Your task to perform on an android device: Open Google Maps Image 0: 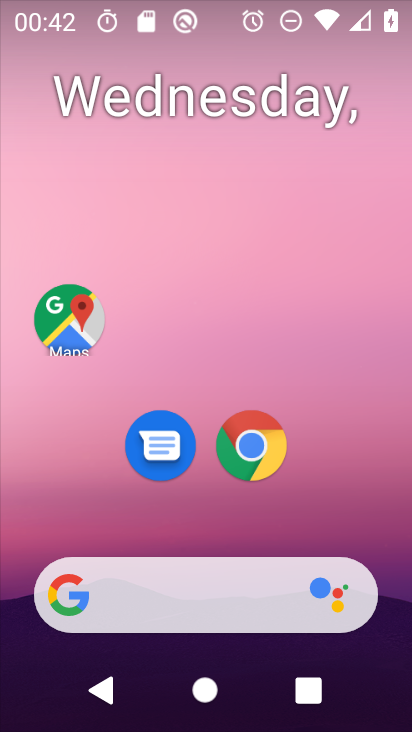
Step 0: drag from (326, 476) to (407, 37)
Your task to perform on an android device: Open Google Maps Image 1: 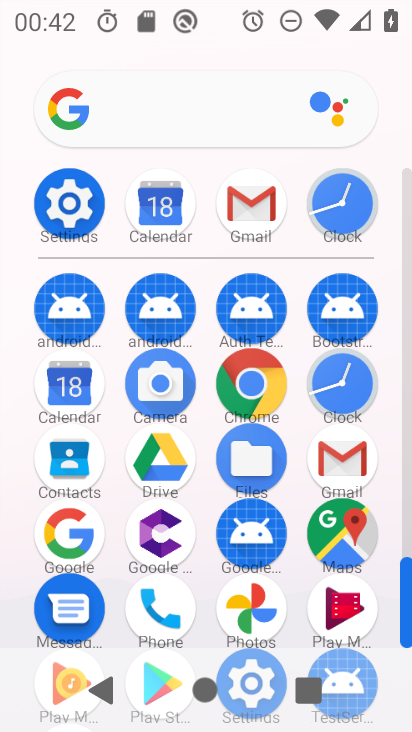
Step 1: click (347, 532)
Your task to perform on an android device: Open Google Maps Image 2: 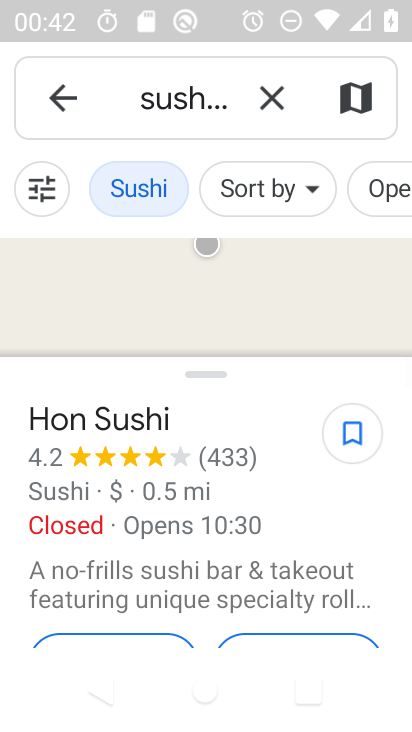
Step 2: click (56, 87)
Your task to perform on an android device: Open Google Maps Image 3: 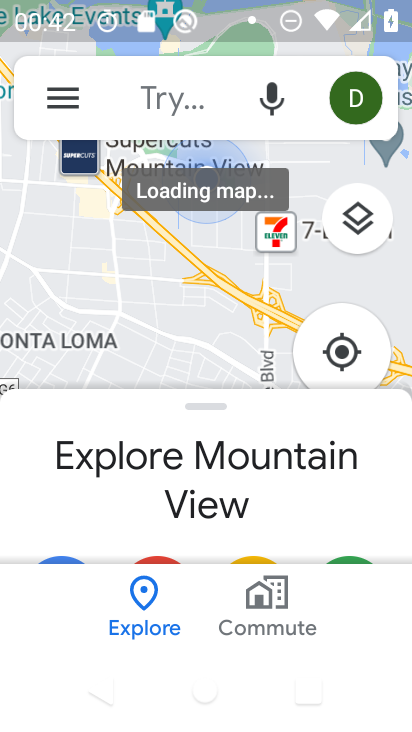
Step 3: task complete